Your task to perform on an android device: Open settings Image 0: 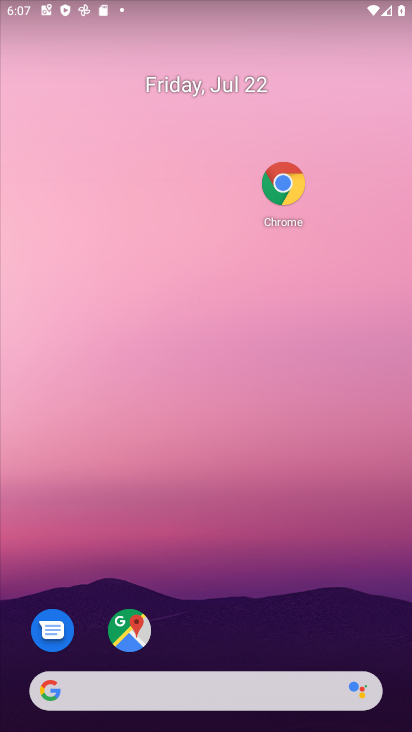
Step 0: drag from (189, 481) to (179, 158)
Your task to perform on an android device: Open settings Image 1: 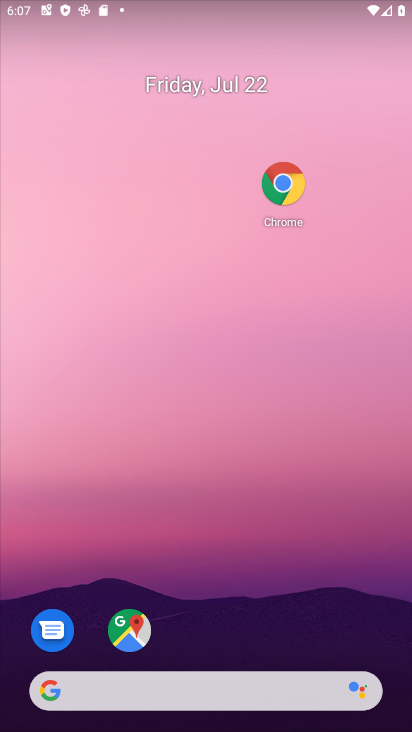
Step 1: drag from (196, 539) to (168, 69)
Your task to perform on an android device: Open settings Image 2: 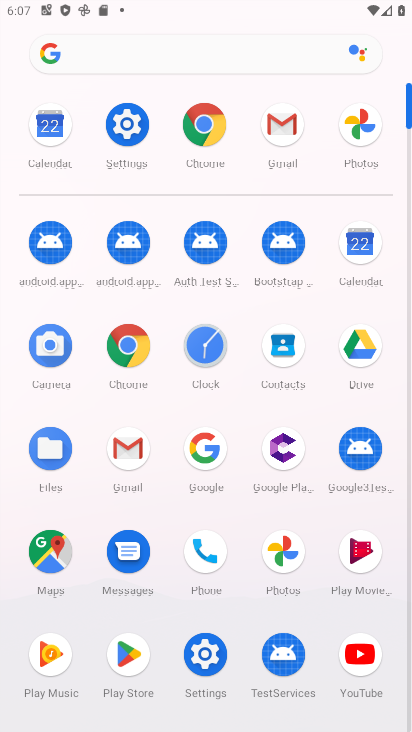
Step 2: click (132, 123)
Your task to perform on an android device: Open settings Image 3: 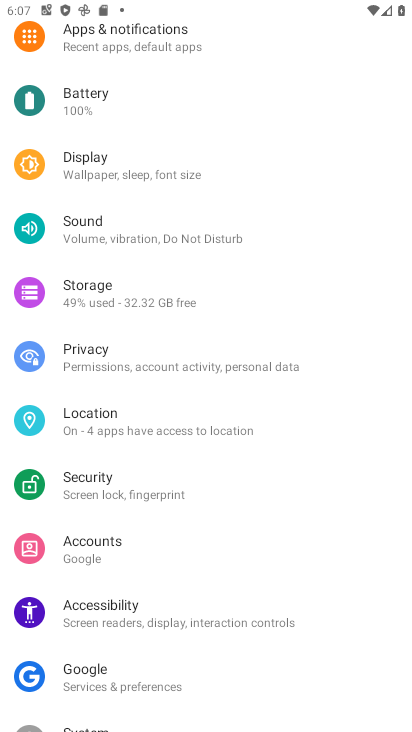
Step 3: task complete